Your task to perform on an android device: open app "Google Maps" Image 0: 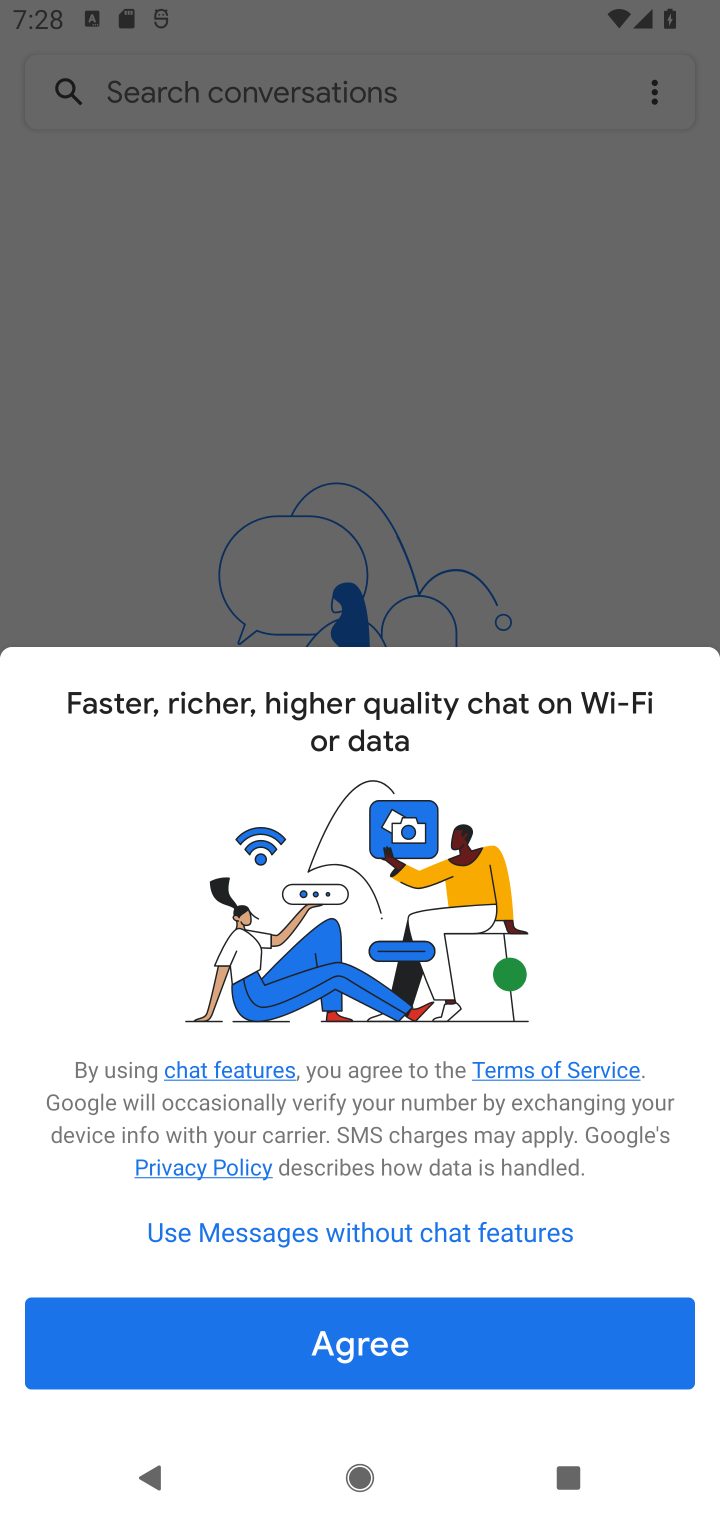
Step 0: press home button
Your task to perform on an android device: open app "Google Maps" Image 1: 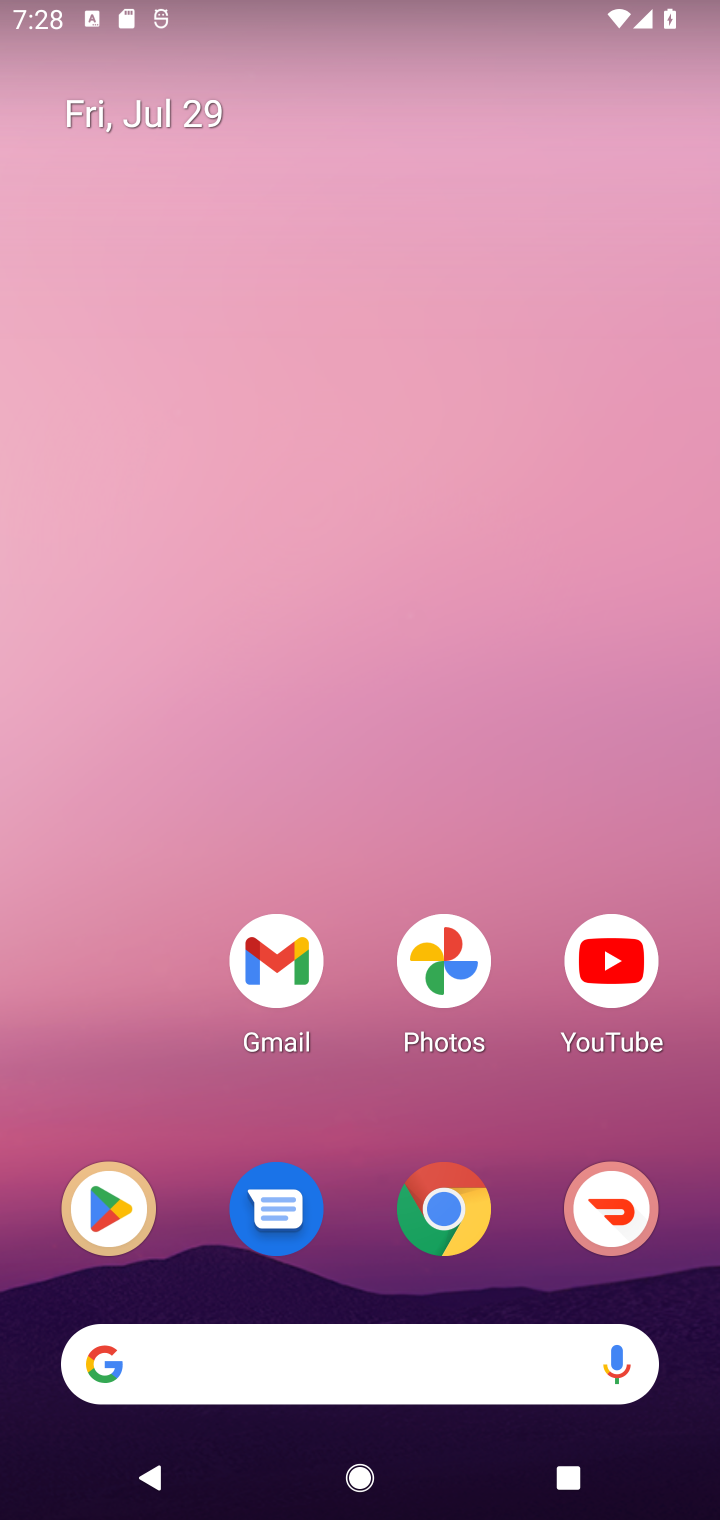
Step 1: drag from (342, 1239) to (308, 73)
Your task to perform on an android device: open app "Google Maps" Image 2: 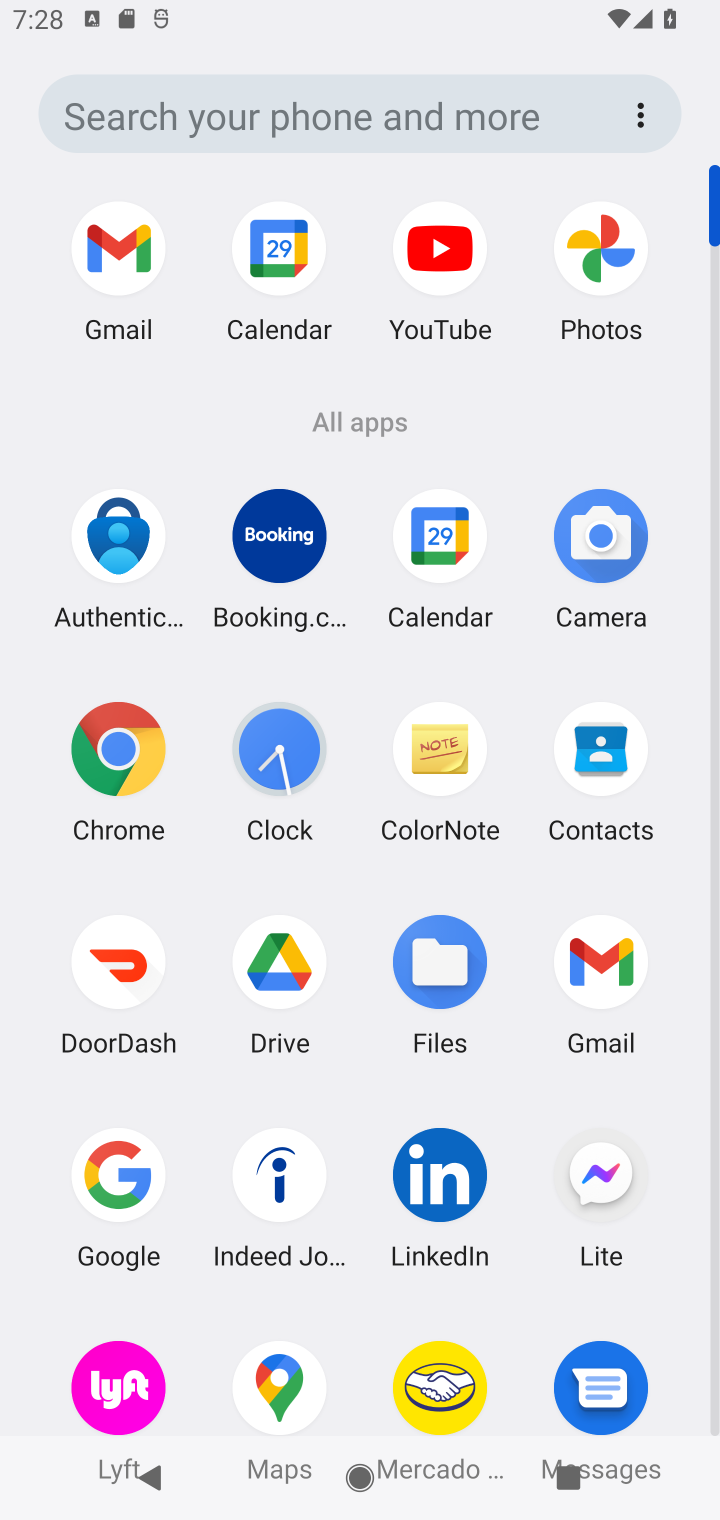
Step 2: drag from (504, 695) to (507, 547)
Your task to perform on an android device: open app "Google Maps" Image 3: 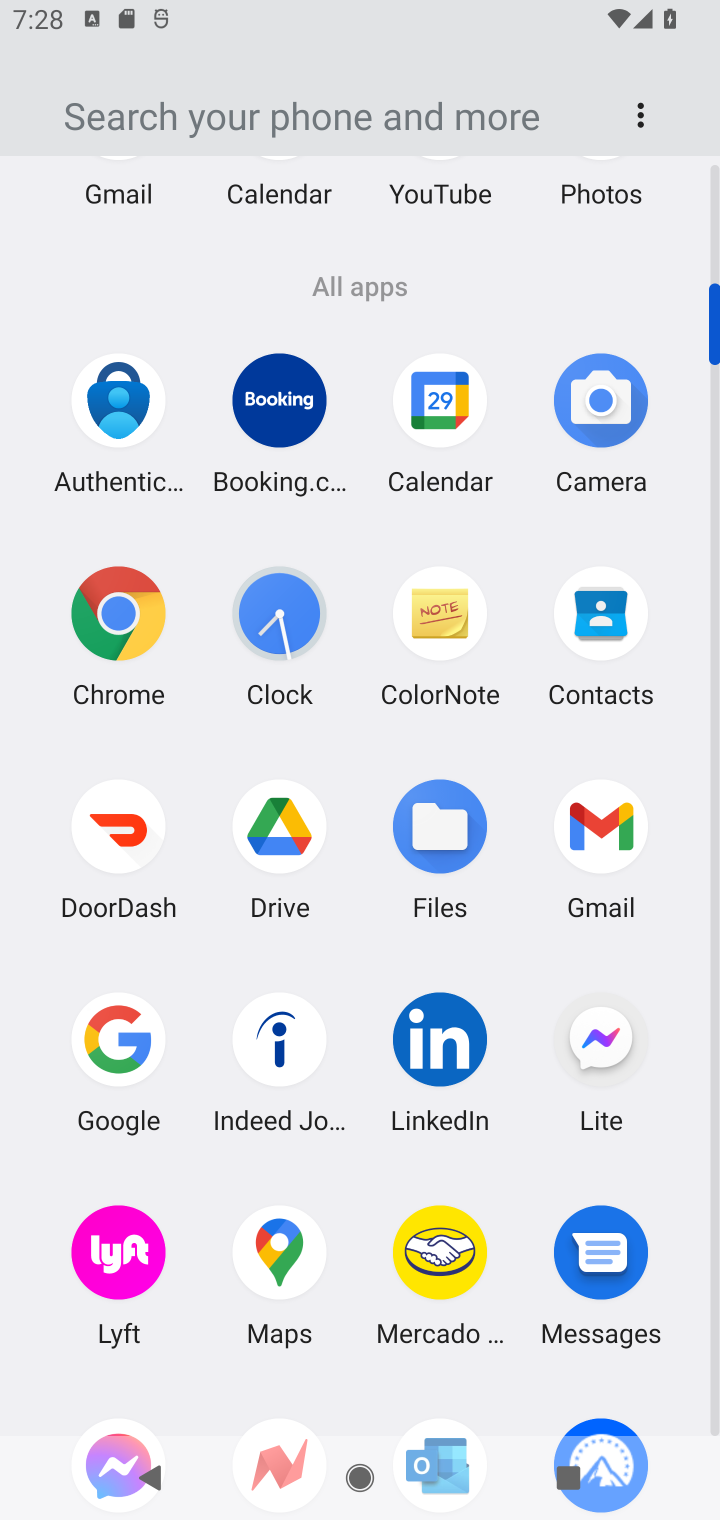
Step 3: click (279, 1258)
Your task to perform on an android device: open app "Google Maps" Image 4: 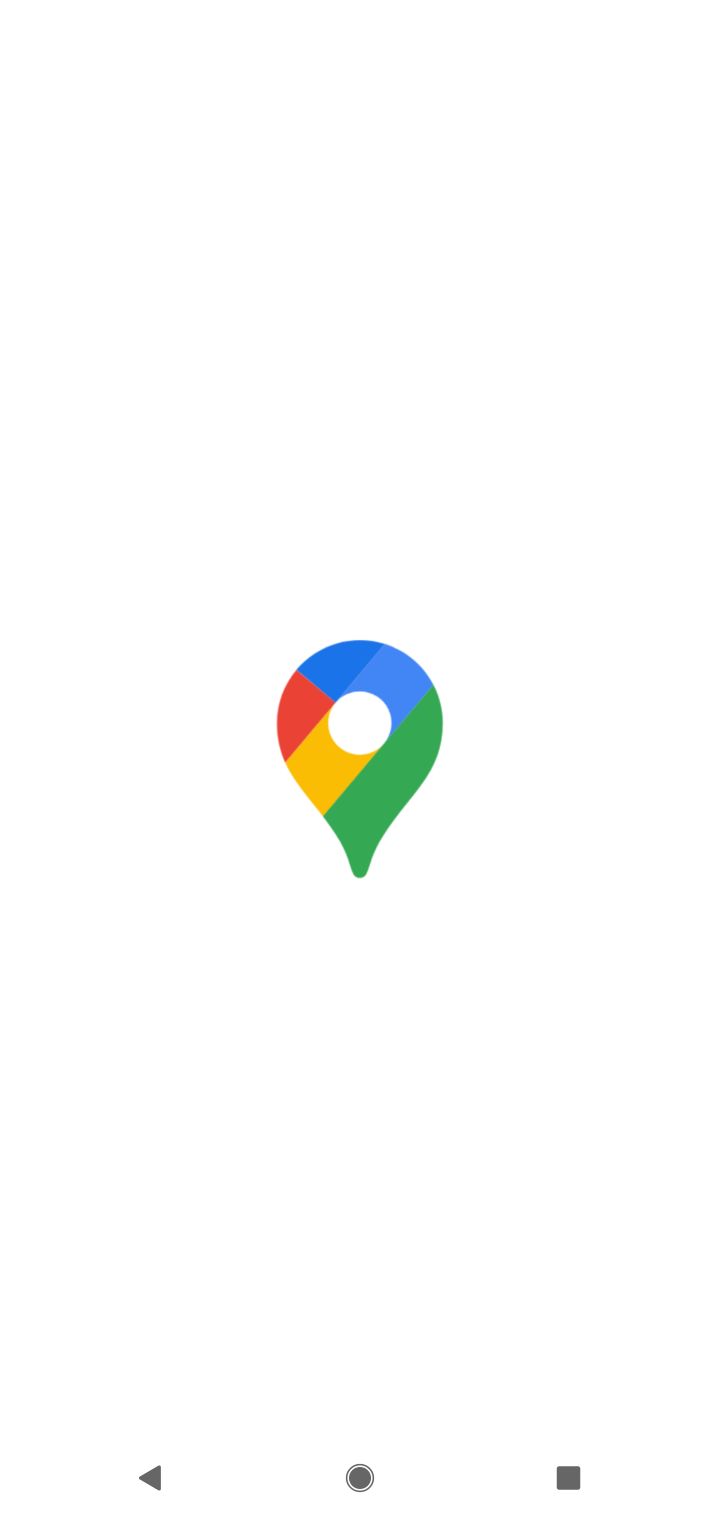
Step 4: drag from (482, 843) to (466, 721)
Your task to perform on an android device: open app "Google Maps" Image 5: 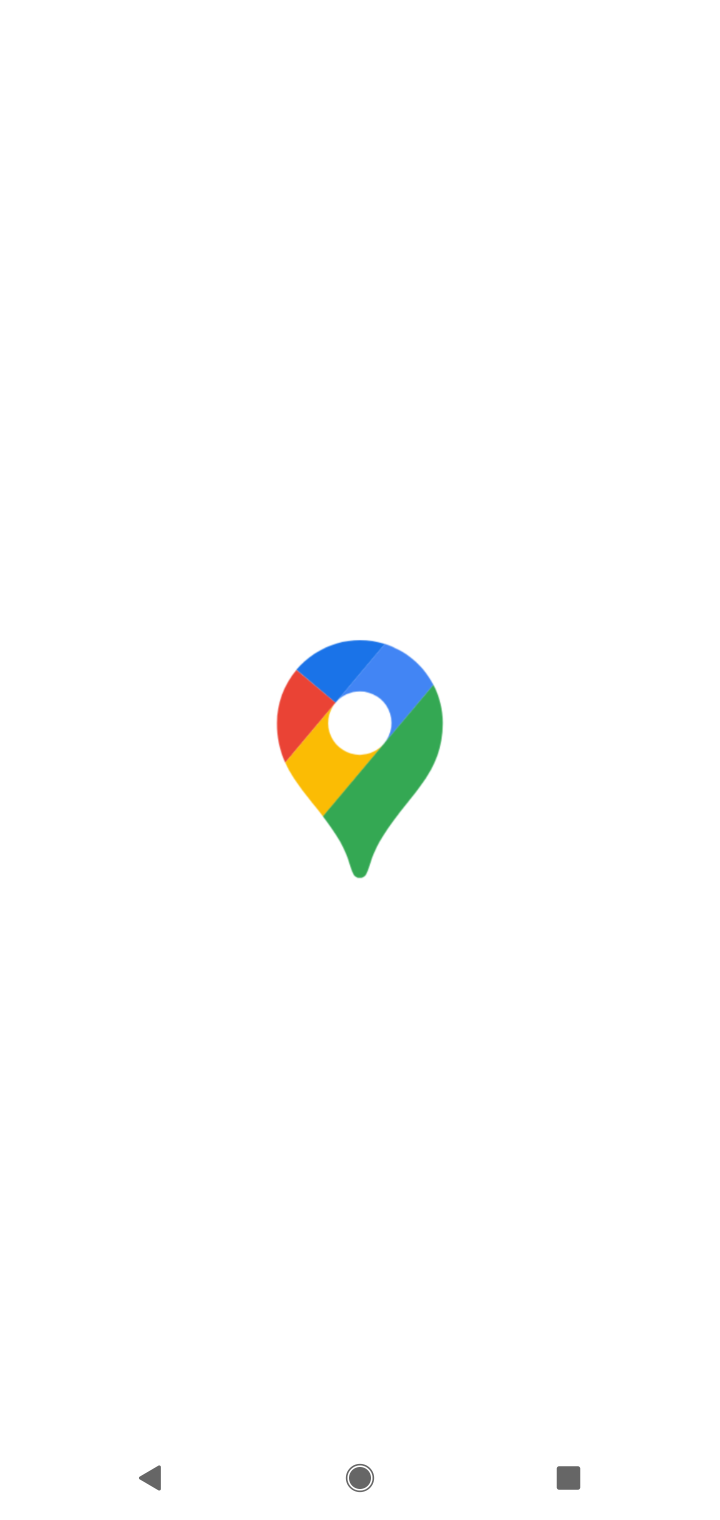
Step 5: drag from (373, 481) to (415, 820)
Your task to perform on an android device: open app "Google Maps" Image 6: 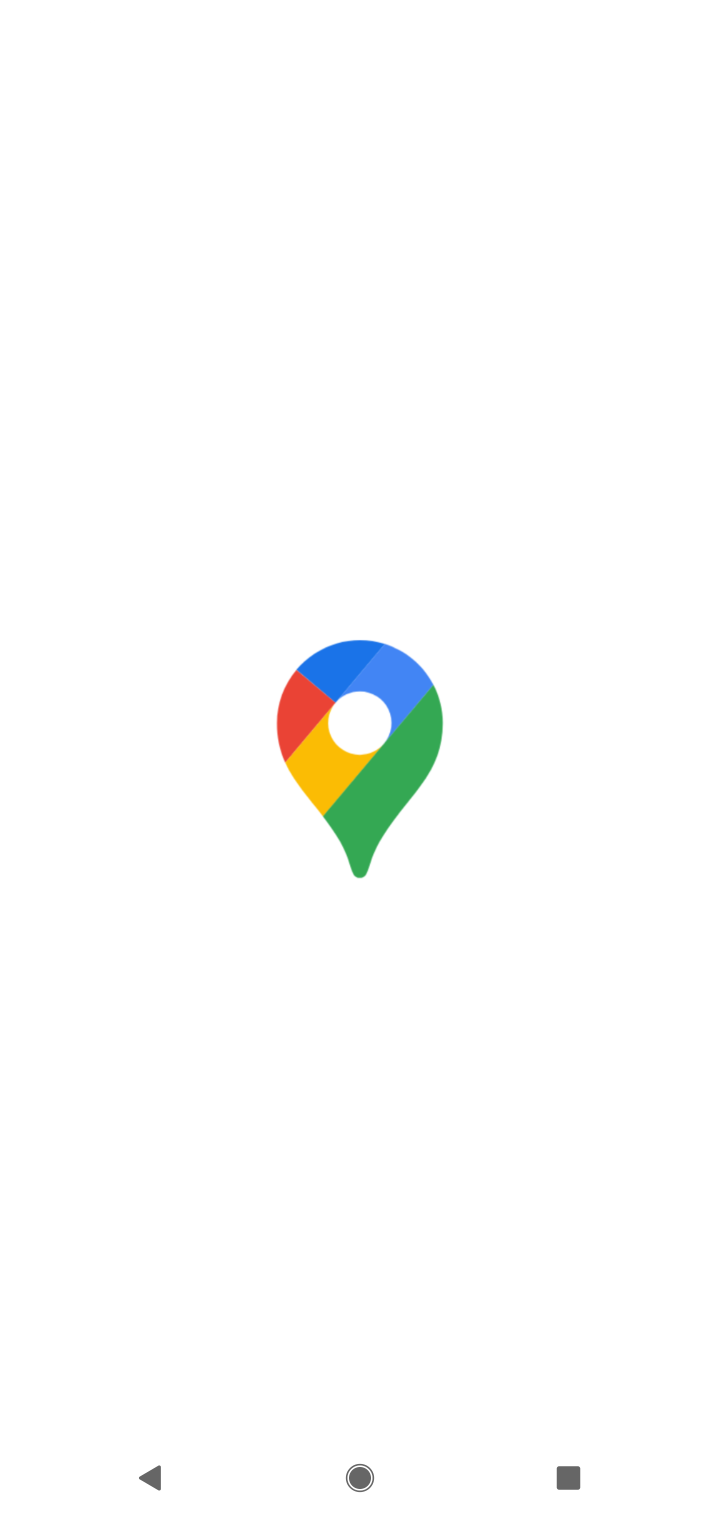
Step 6: press home button
Your task to perform on an android device: open app "Google Maps" Image 7: 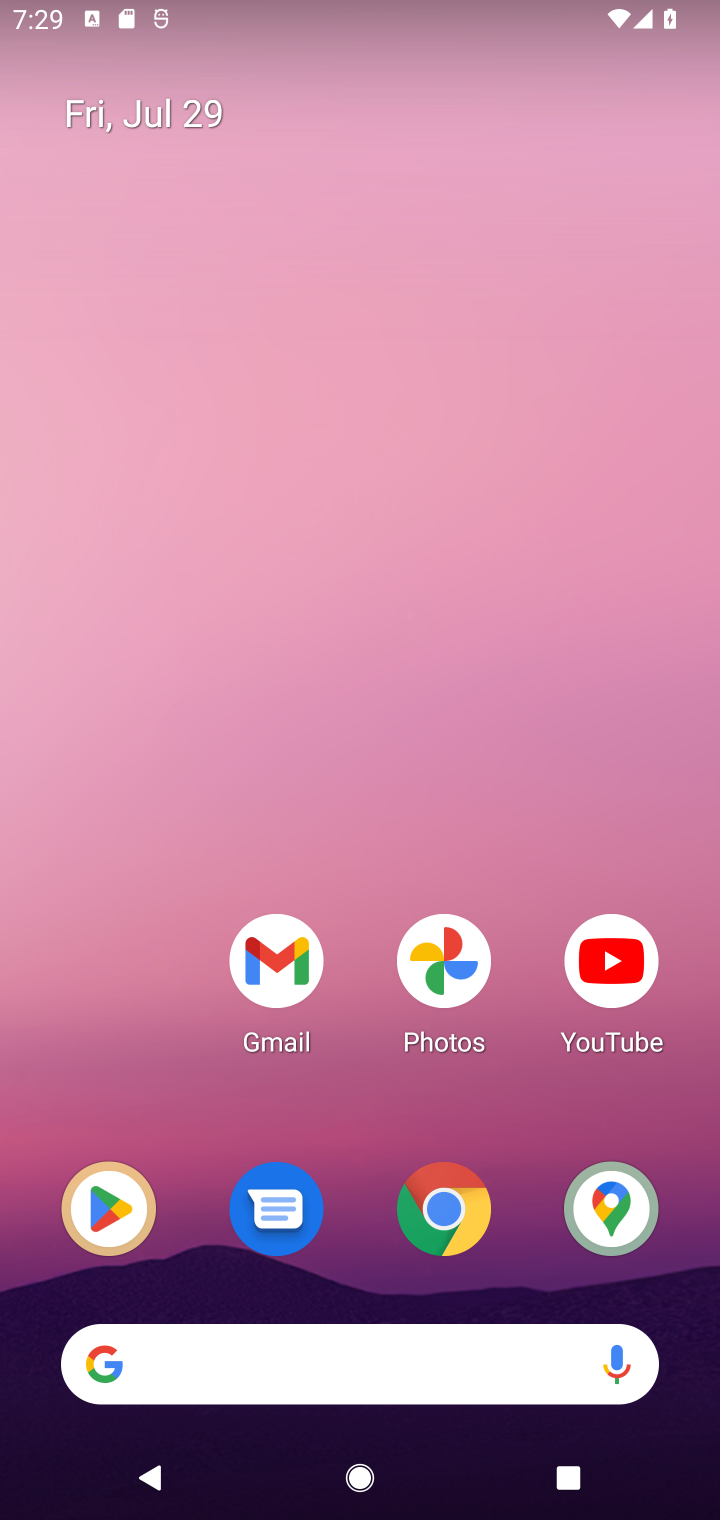
Step 7: drag from (356, 1157) to (309, 232)
Your task to perform on an android device: open app "Google Maps" Image 8: 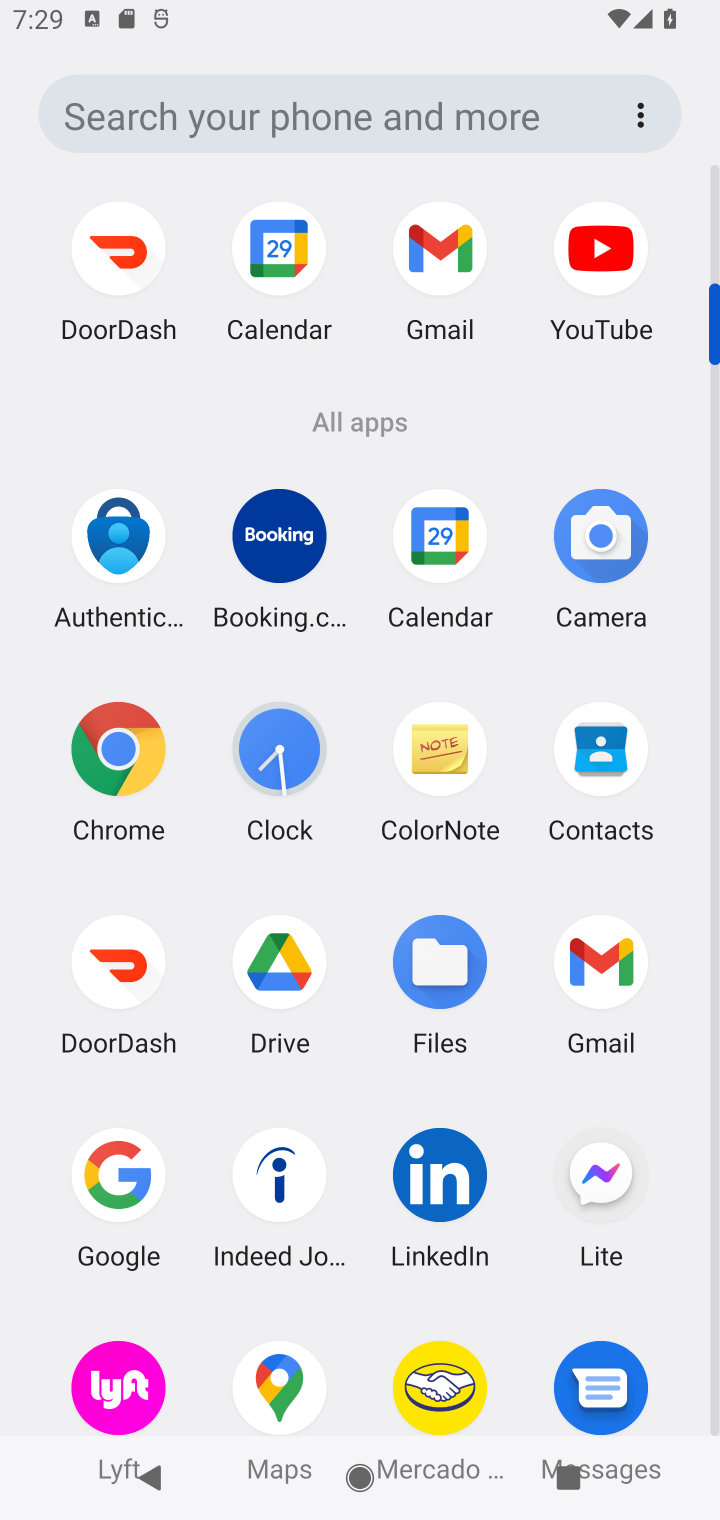
Step 8: click (281, 1372)
Your task to perform on an android device: open app "Google Maps" Image 9: 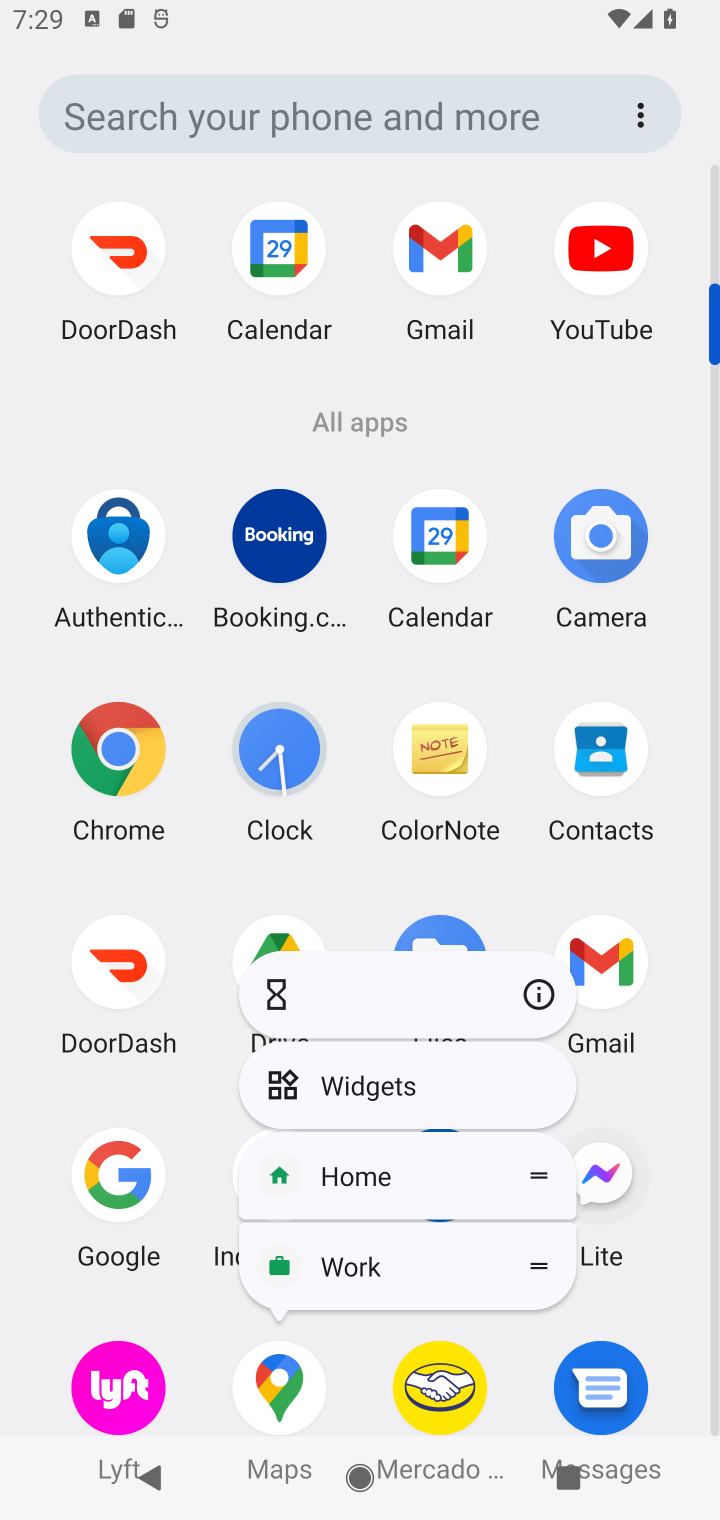
Step 9: click (281, 1372)
Your task to perform on an android device: open app "Google Maps" Image 10: 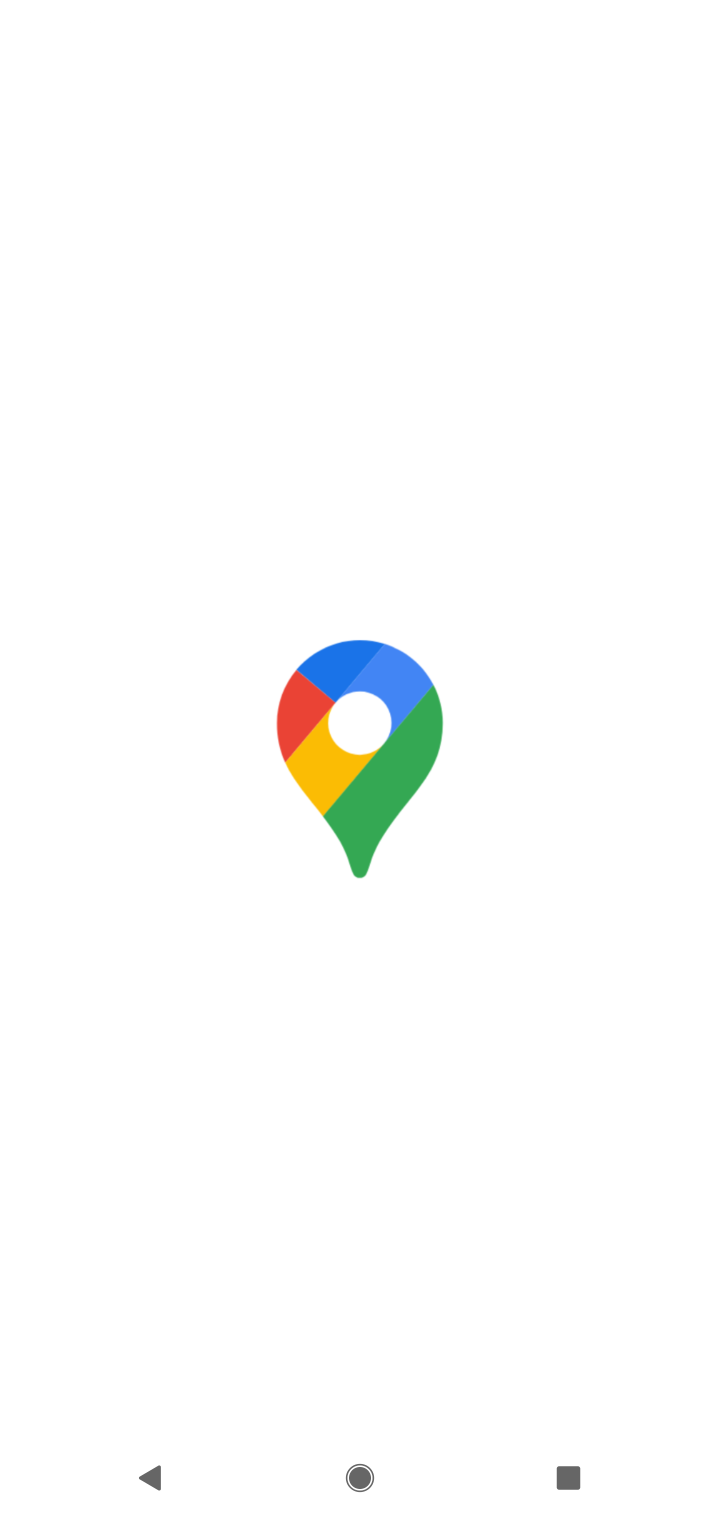
Step 10: task complete